Your task to perform on an android device: Empty the shopping cart on bestbuy.com. Add logitech g933 to the cart on bestbuy.com, then select checkout. Image 0: 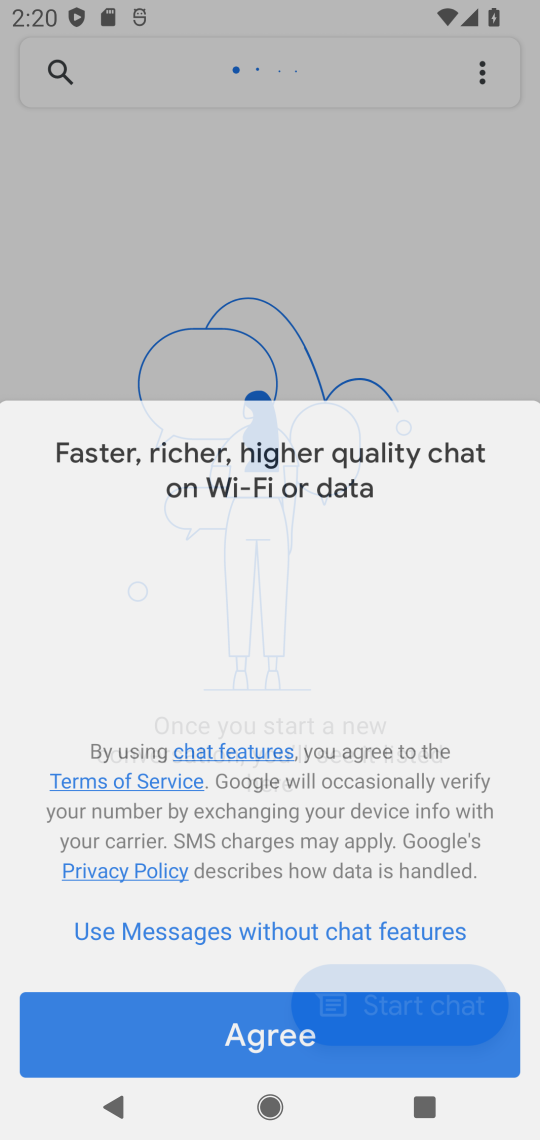
Step 0: press home button
Your task to perform on an android device: Empty the shopping cart on bestbuy.com. Add logitech g933 to the cart on bestbuy.com, then select checkout. Image 1: 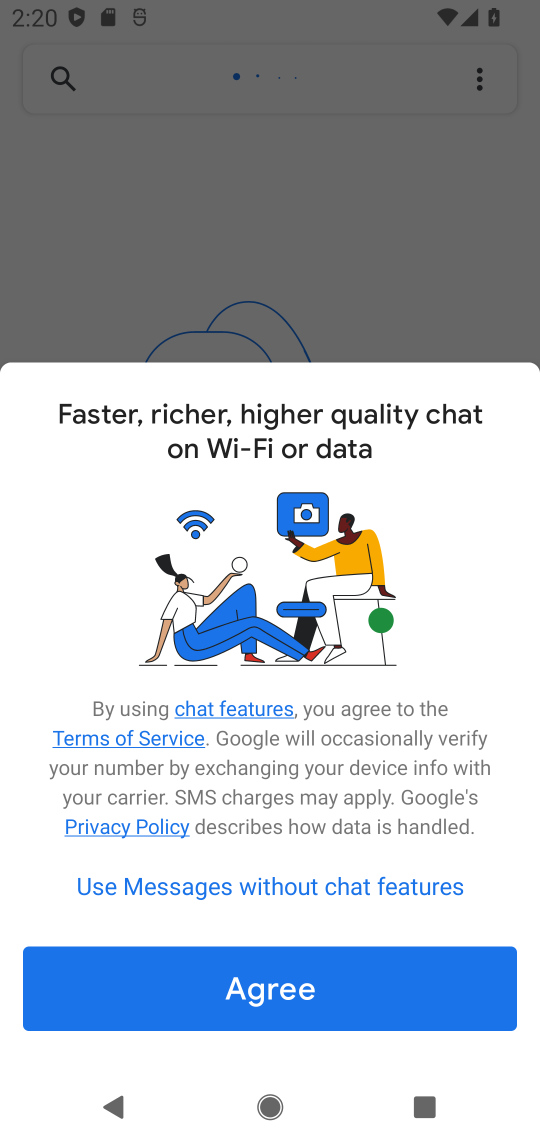
Step 1: press home button
Your task to perform on an android device: Empty the shopping cart on bestbuy.com. Add logitech g933 to the cart on bestbuy.com, then select checkout. Image 2: 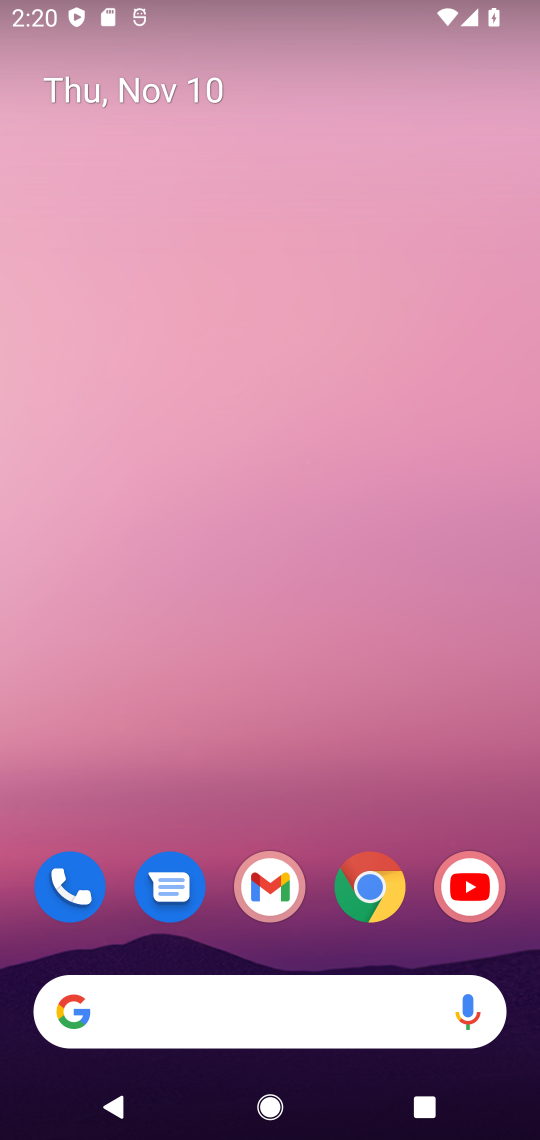
Step 2: drag from (310, 964) to (378, 2)
Your task to perform on an android device: Empty the shopping cart on bestbuy.com. Add logitech g933 to the cart on bestbuy.com, then select checkout. Image 3: 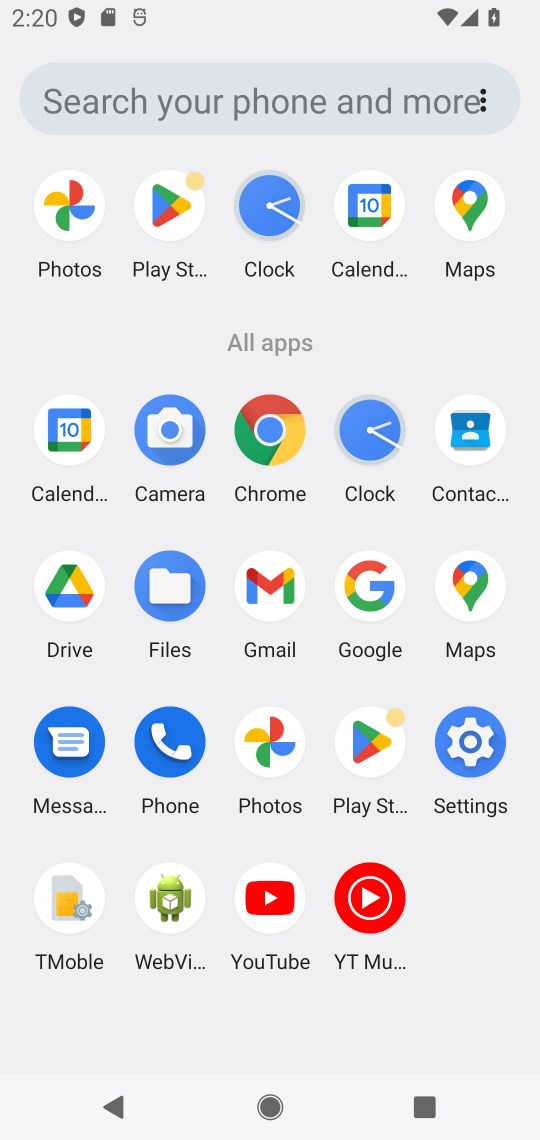
Step 3: click (275, 428)
Your task to perform on an android device: Empty the shopping cart on bestbuy.com. Add logitech g933 to the cart on bestbuy.com, then select checkout. Image 4: 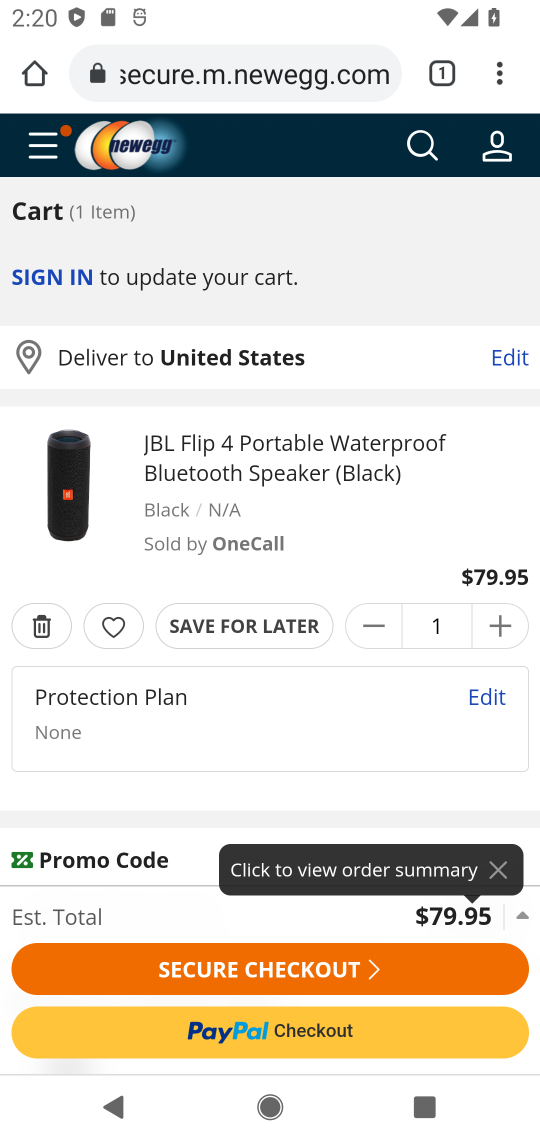
Step 4: click (264, 66)
Your task to perform on an android device: Empty the shopping cart on bestbuy.com. Add logitech g933 to the cart on bestbuy.com, then select checkout. Image 5: 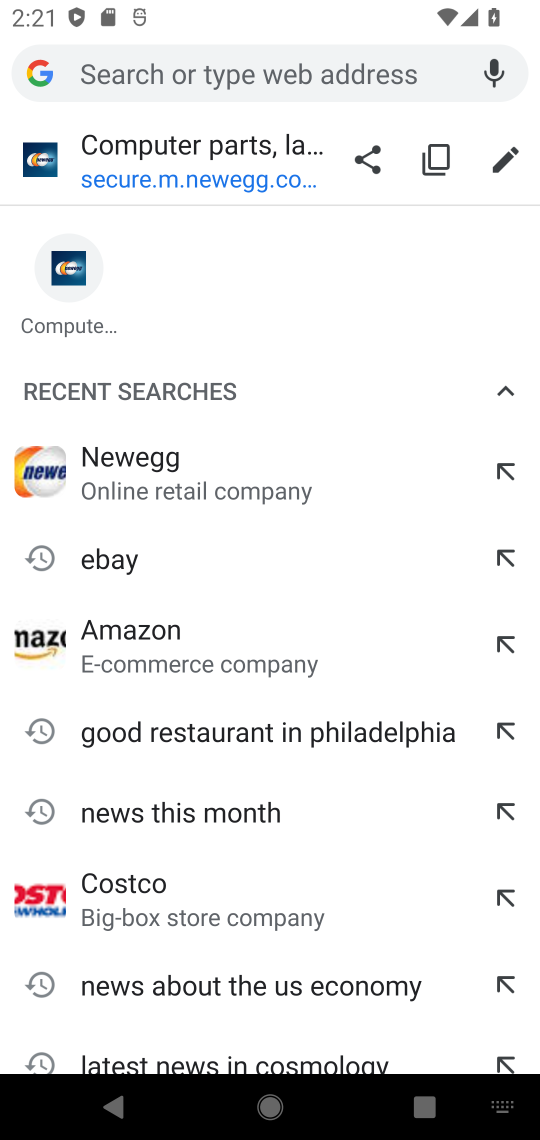
Step 5: type "bestbuy.com"
Your task to perform on an android device: Empty the shopping cart on bestbuy.com. Add logitech g933 to the cart on bestbuy.com, then select checkout. Image 6: 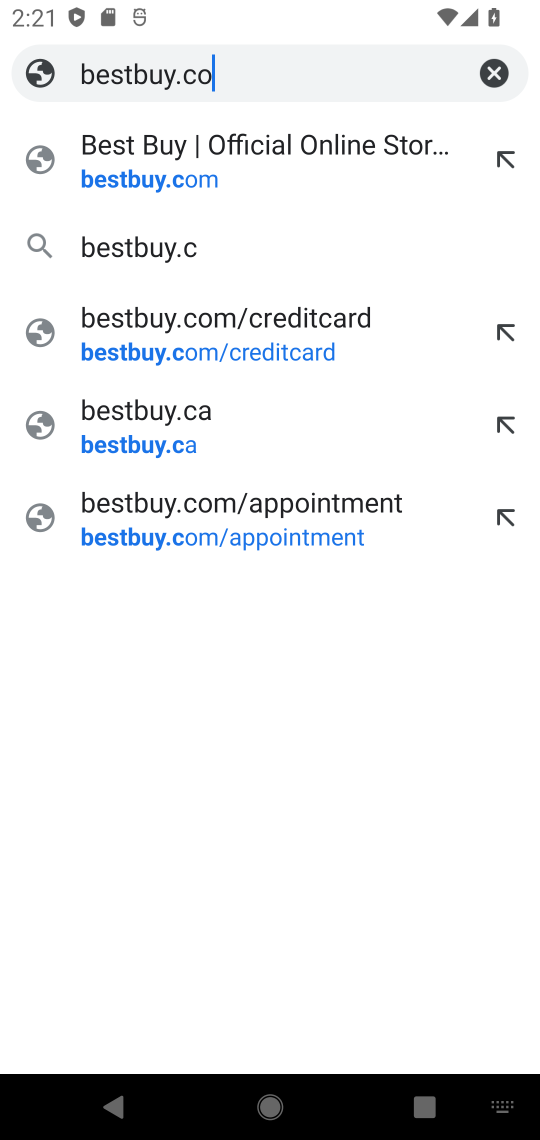
Step 6: press enter
Your task to perform on an android device: Empty the shopping cart on bestbuy.com. Add logitech g933 to the cart on bestbuy.com, then select checkout. Image 7: 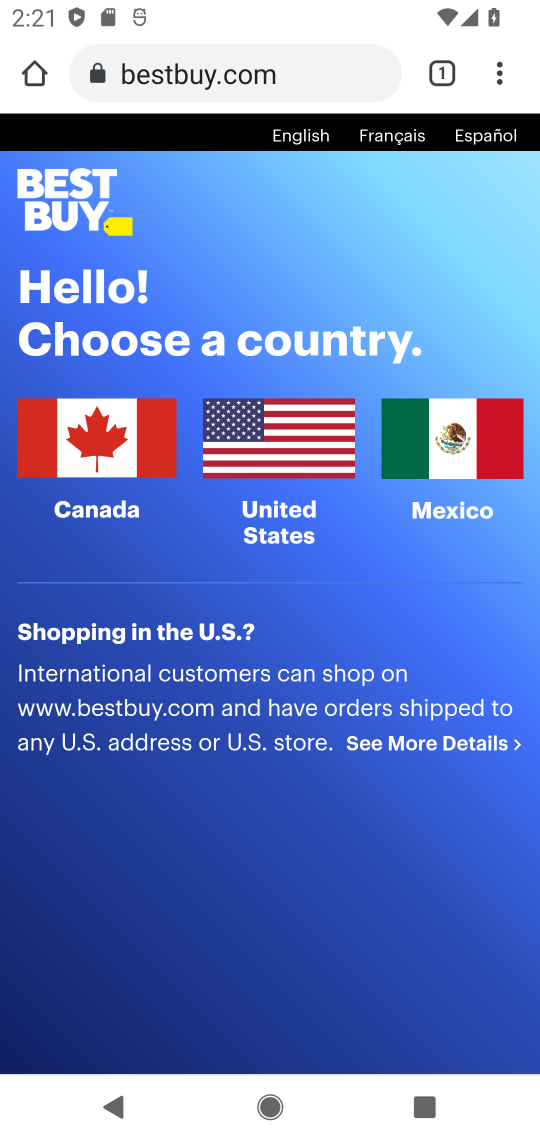
Step 7: click (128, 459)
Your task to perform on an android device: Empty the shopping cart on bestbuy.com. Add logitech g933 to the cart on bestbuy.com, then select checkout. Image 8: 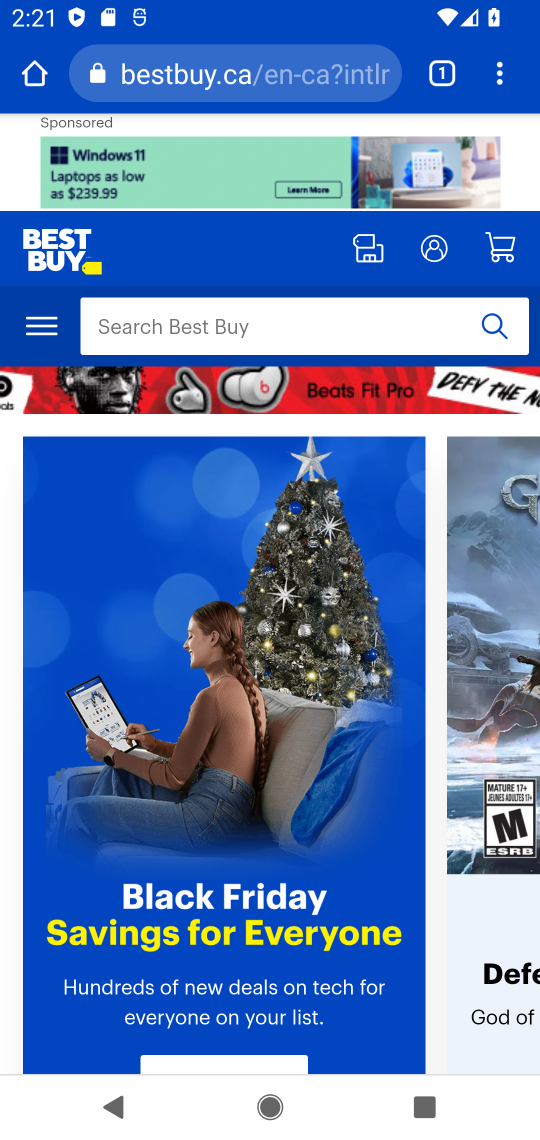
Step 8: click (512, 246)
Your task to perform on an android device: Empty the shopping cart on bestbuy.com. Add logitech g933 to the cart on bestbuy.com, then select checkout. Image 9: 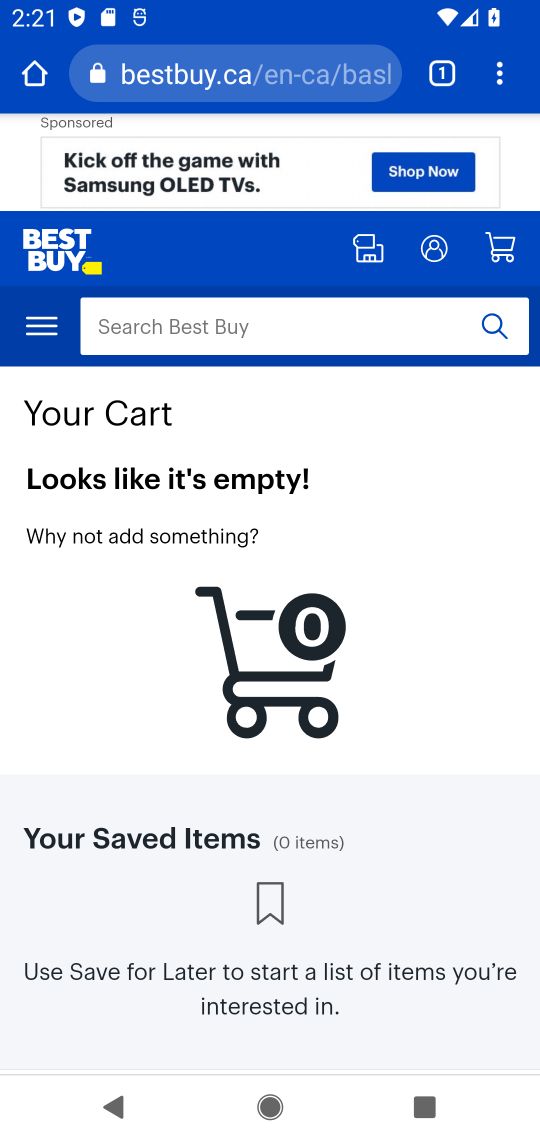
Step 9: click (284, 331)
Your task to perform on an android device: Empty the shopping cart on bestbuy.com. Add logitech g933 to the cart on bestbuy.com, then select checkout. Image 10: 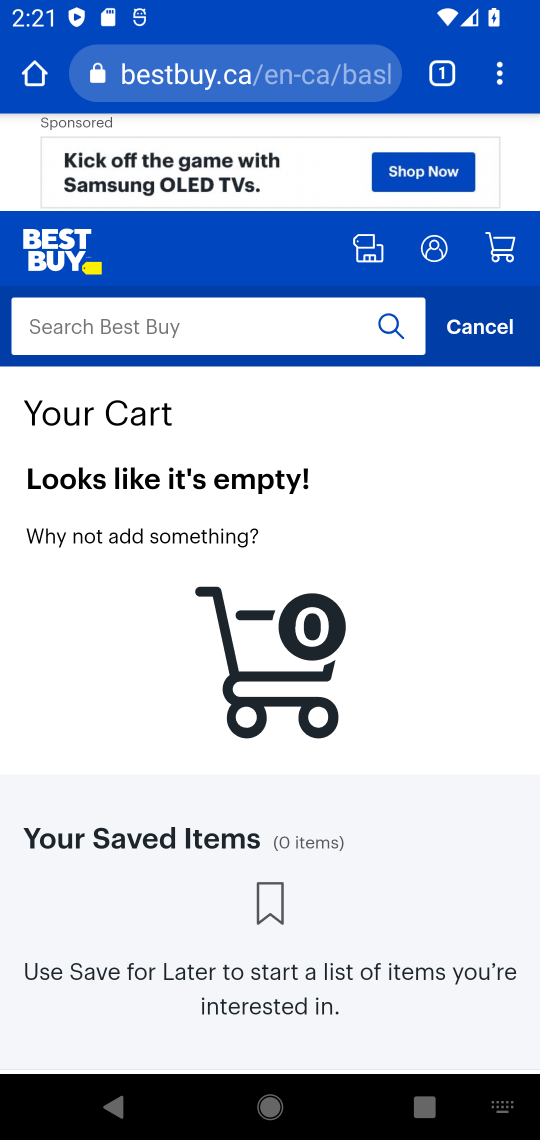
Step 10: type "logitech g933"
Your task to perform on an android device: Empty the shopping cart on bestbuy.com. Add logitech g933 to the cart on bestbuy.com, then select checkout. Image 11: 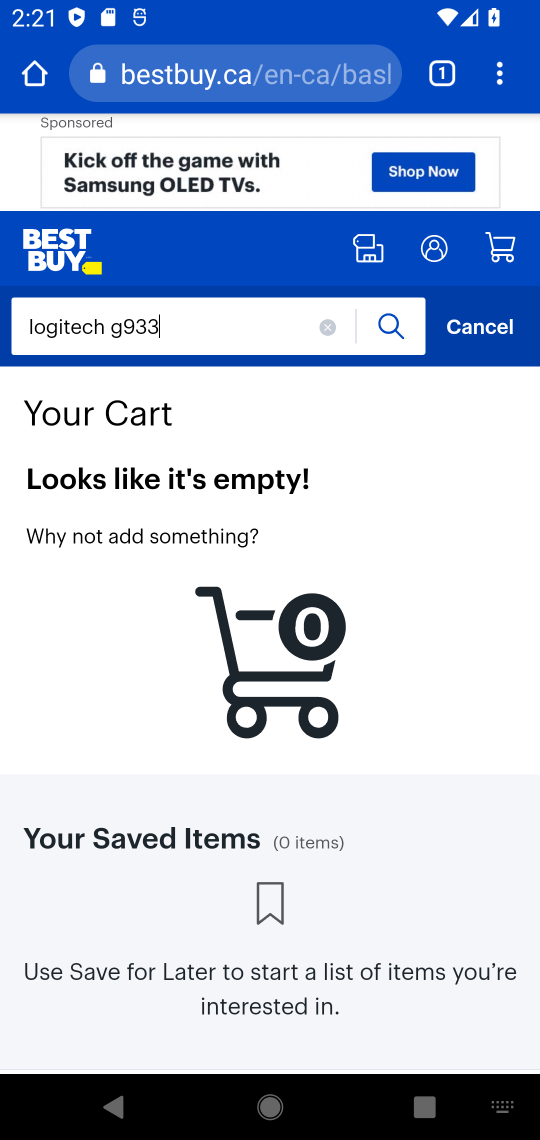
Step 11: press enter
Your task to perform on an android device: Empty the shopping cart on bestbuy.com. Add logitech g933 to the cart on bestbuy.com, then select checkout. Image 12: 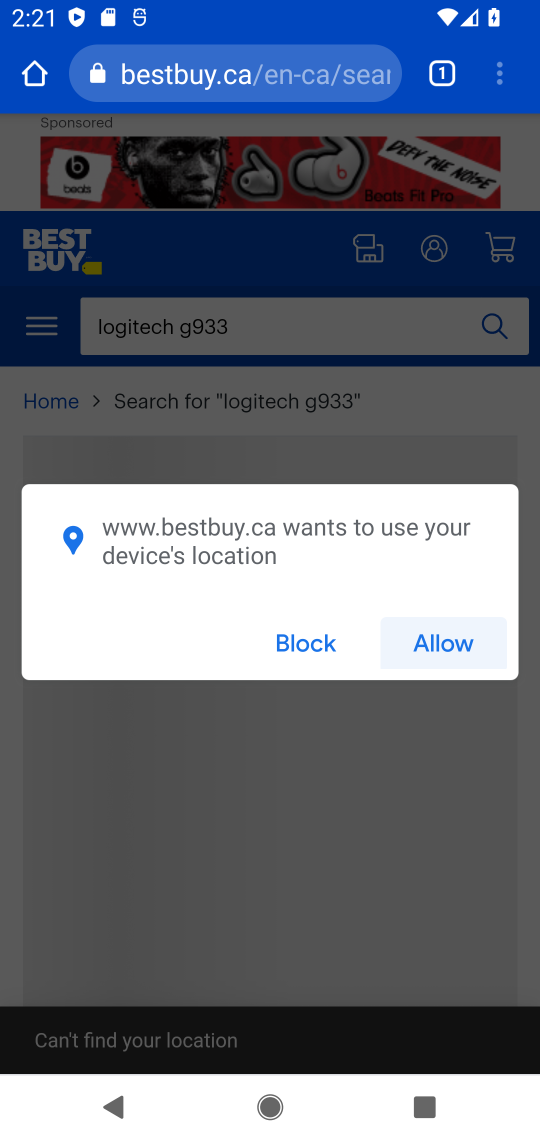
Step 12: click (311, 632)
Your task to perform on an android device: Empty the shopping cart on bestbuy.com. Add logitech g933 to the cart on bestbuy.com, then select checkout. Image 13: 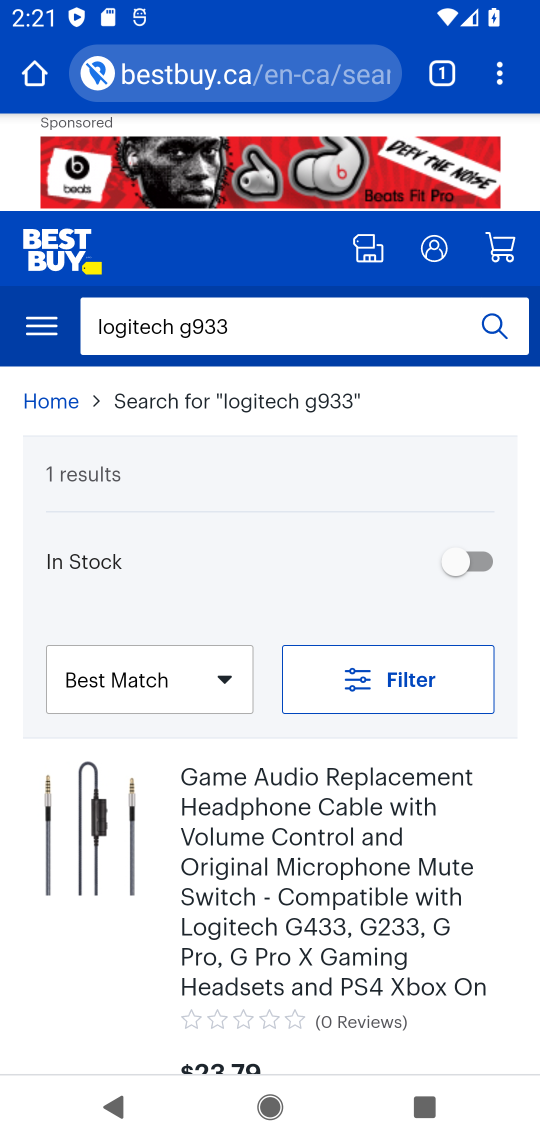
Step 13: task complete